Your task to perform on an android device: Show me recent news Image 0: 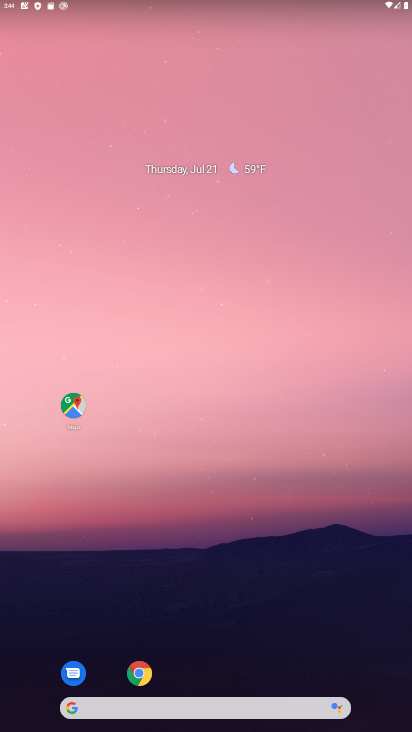
Step 0: drag from (2, 298) to (382, 328)
Your task to perform on an android device: Show me recent news Image 1: 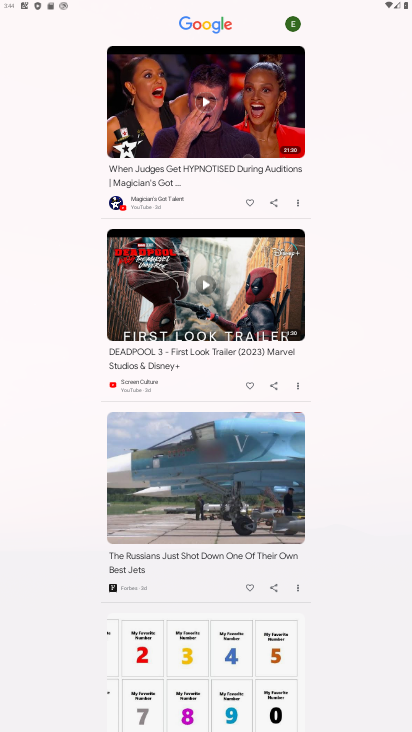
Step 1: task complete